Your task to perform on an android device: Check the settings for the Pandora app Image 0: 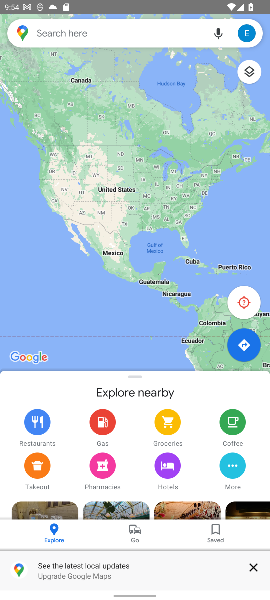
Step 0: click (251, 569)
Your task to perform on an android device: Check the settings for the Pandora app Image 1: 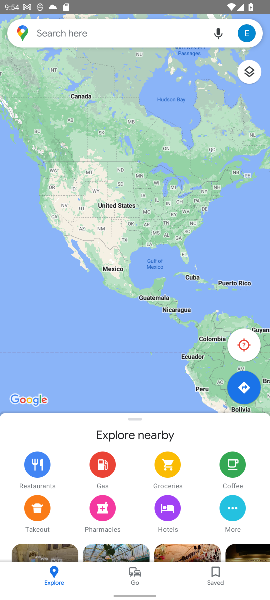
Step 1: task complete